Your task to perform on an android device: Check out the top rated books on Goodreads. Image 0: 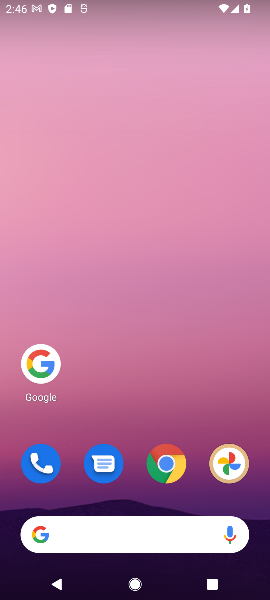
Step 0: drag from (121, 533) to (149, 161)
Your task to perform on an android device: Check out the top rated books on Goodreads. Image 1: 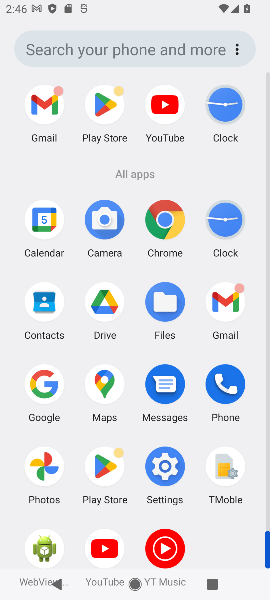
Step 1: click (39, 381)
Your task to perform on an android device: Check out the top rated books on Goodreads. Image 2: 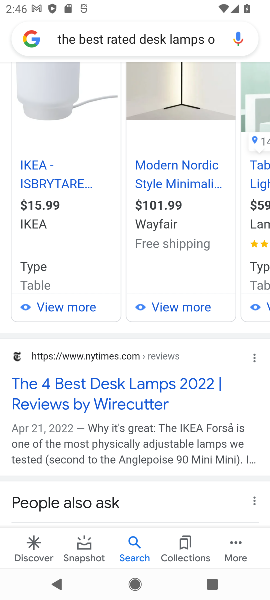
Step 2: drag from (153, 144) to (149, 495)
Your task to perform on an android device: Check out the top rated books on Goodreads. Image 3: 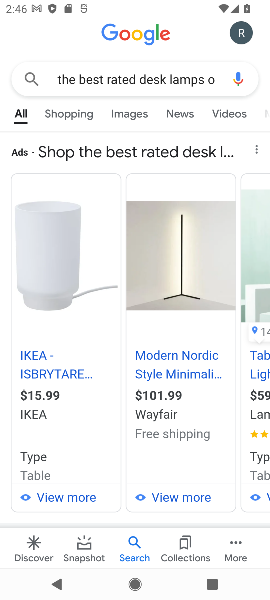
Step 3: click (160, 68)
Your task to perform on an android device: Check out the top rated books on Goodreads. Image 4: 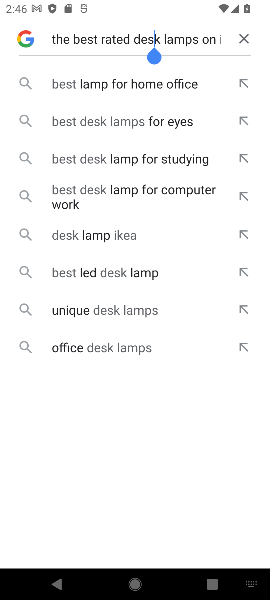
Step 4: click (247, 33)
Your task to perform on an android device: Check out the top rated books on Goodreads. Image 5: 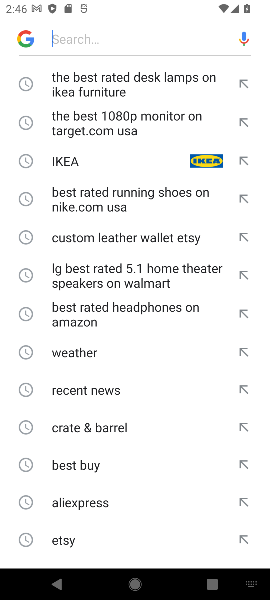
Step 5: click (87, 27)
Your task to perform on an android device: Check out the top rated books on Goodreads. Image 6: 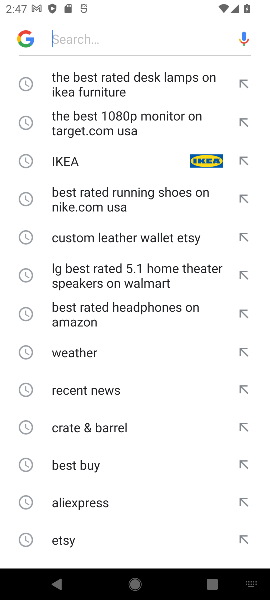
Step 6: type "the top rated books on Goodreads "
Your task to perform on an android device: Check out the top rated books on Goodreads. Image 7: 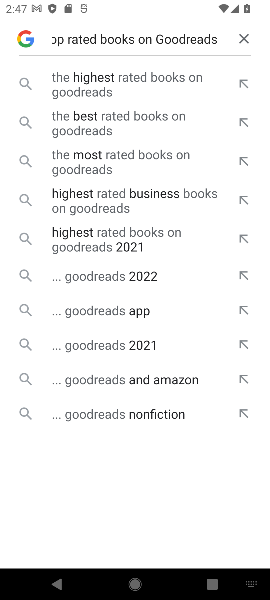
Step 7: click (83, 73)
Your task to perform on an android device: Check out the top rated books on Goodreads. Image 8: 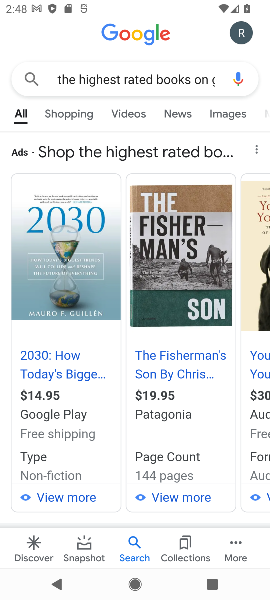
Step 8: drag from (95, 511) to (102, 183)
Your task to perform on an android device: Check out the top rated books on Goodreads. Image 9: 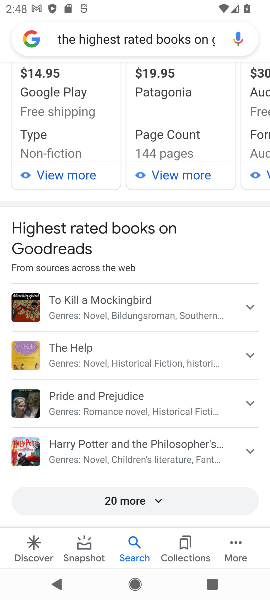
Step 9: drag from (117, 291) to (123, 138)
Your task to perform on an android device: Check out the top rated books on Goodreads. Image 10: 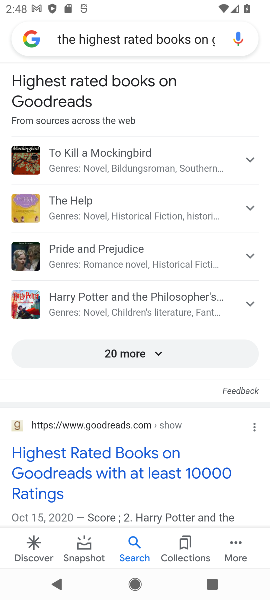
Step 10: click (99, 471)
Your task to perform on an android device: Check out the top rated books on Goodreads. Image 11: 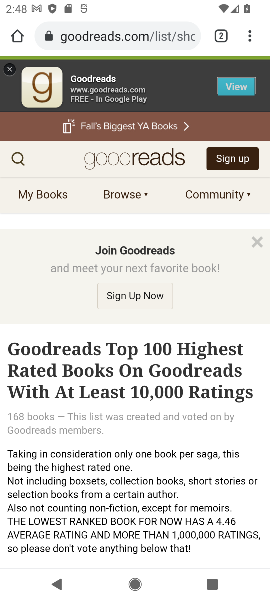
Step 11: task complete